Your task to perform on an android device: Toggle the flashlight Image 0: 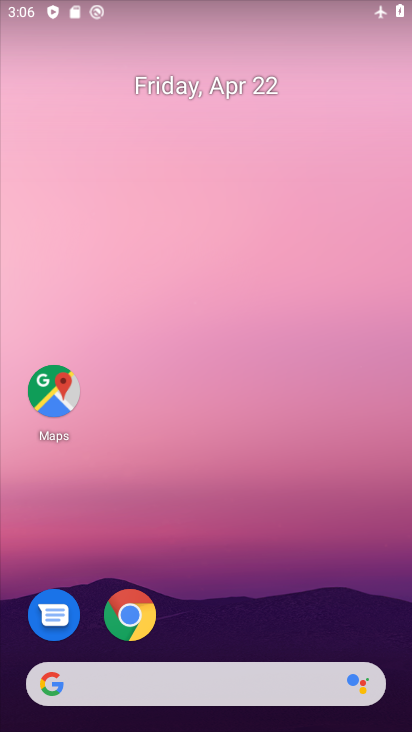
Step 0: drag from (240, 7) to (240, 490)
Your task to perform on an android device: Toggle the flashlight Image 1: 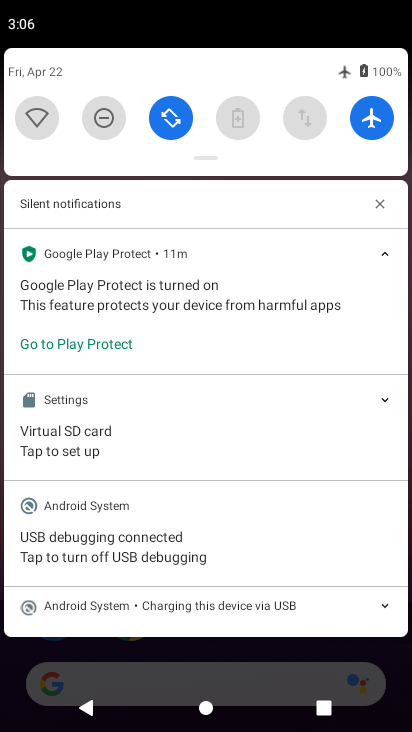
Step 1: drag from (249, 141) to (249, 536)
Your task to perform on an android device: Toggle the flashlight Image 2: 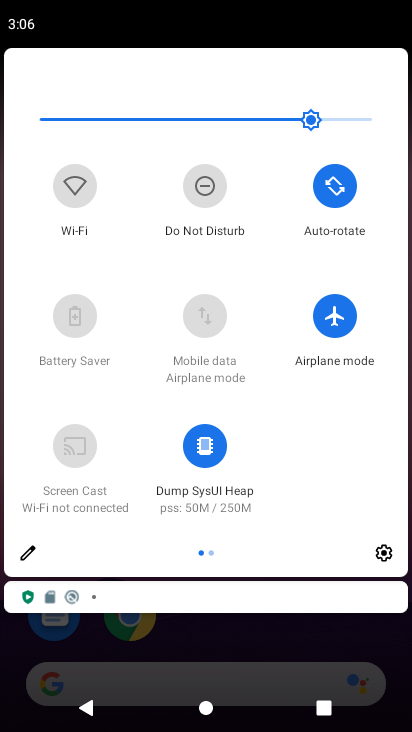
Step 2: drag from (377, 355) to (8, 404)
Your task to perform on an android device: Toggle the flashlight Image 3: 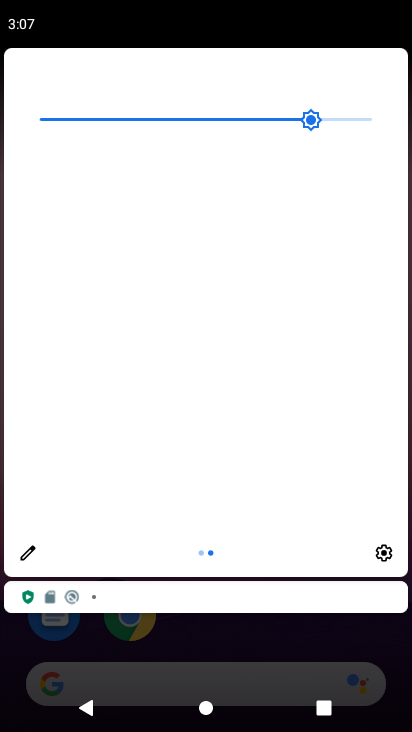
Step 3: click (27, 555)
Your task to perform on an android device: Toggle the flashlight Image 4: 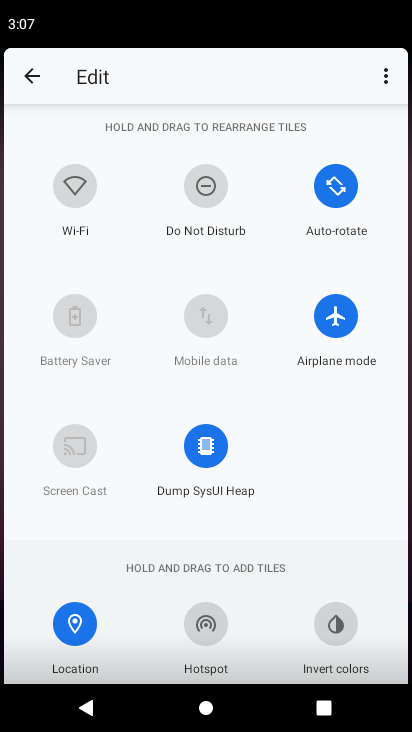
Step 4: task complete